Your task to perform on an android device: Open the stopwatch Image 0: 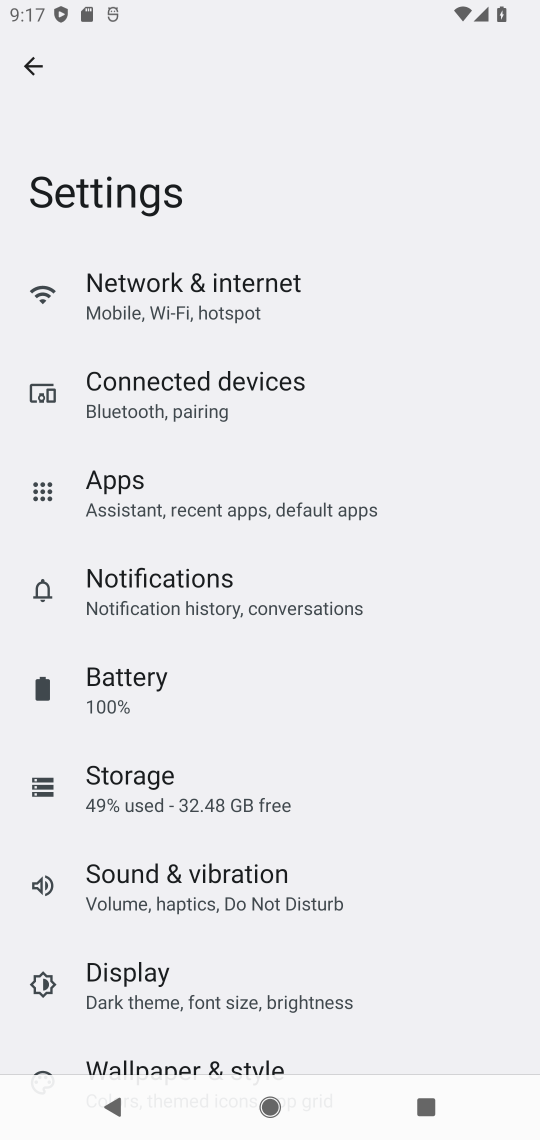
Step 0: press back button
Your task to perform on an android device: Open the stopwatch Image 1: 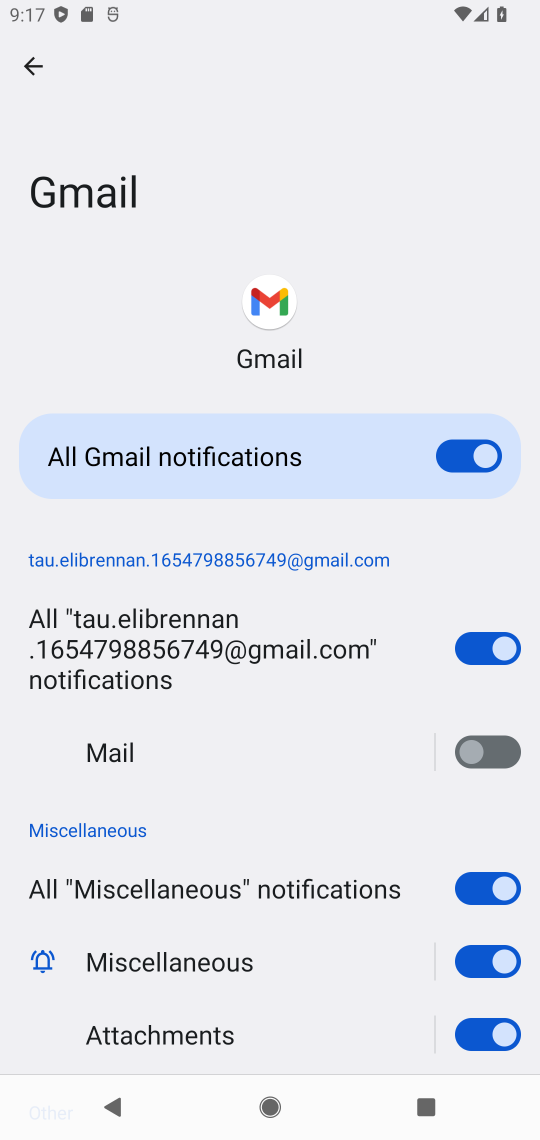
Step 1: press back button
Your task to perform on an android device: Open the stopwatch Image 2: 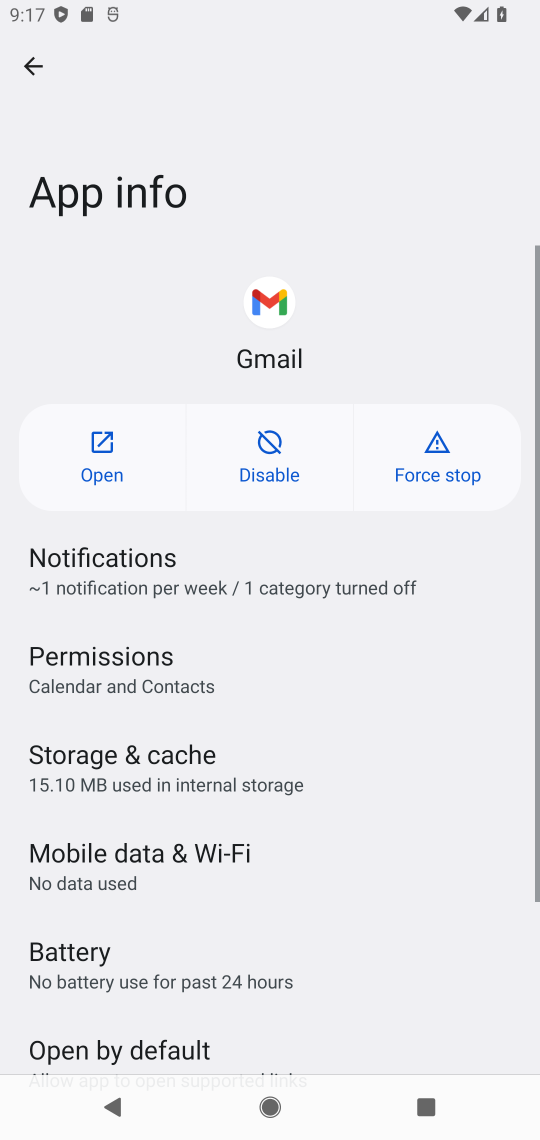
Step 2: press back button
Your task to perform on an android device: Open the stopwatch Image 3: 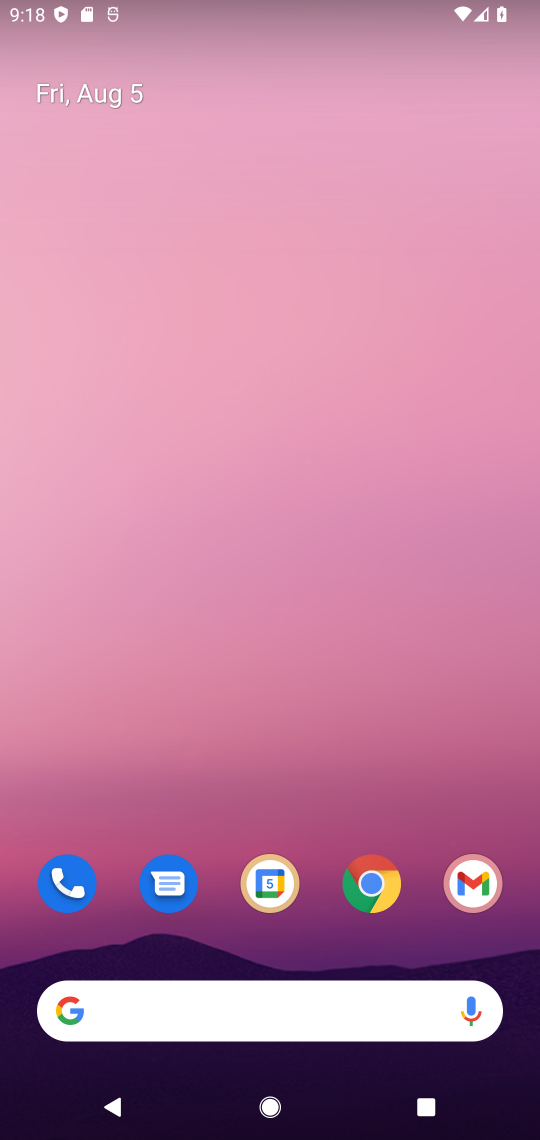
Step 3: drag from (255, 771) to (353, 95)
Your task to perform on an android device: Open the stopwatch Image 4: 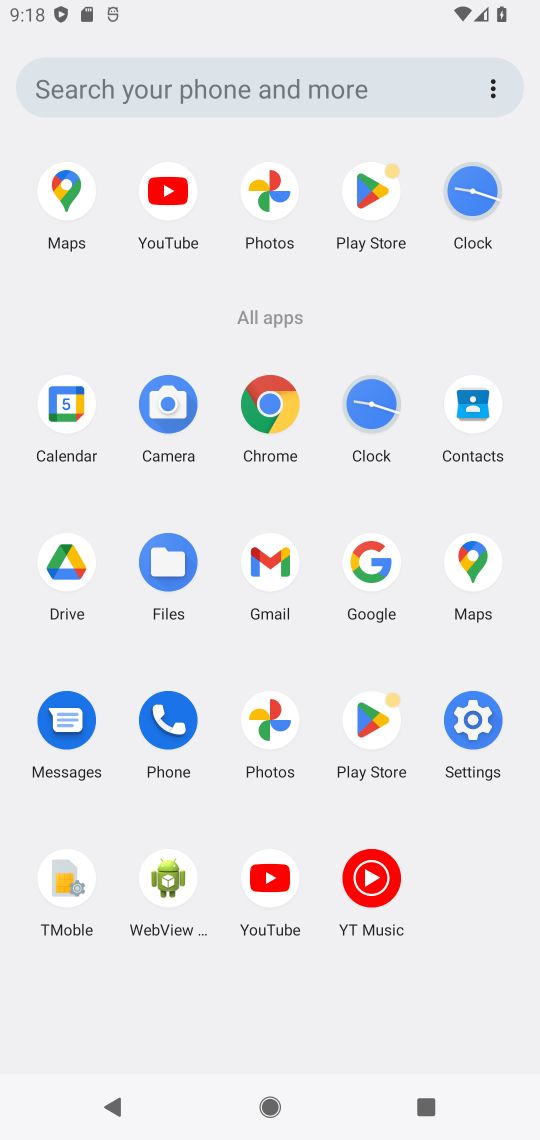
Step 4: click (477, 192)
Your task to perform on an android device: Open the stopwatch Image 5: 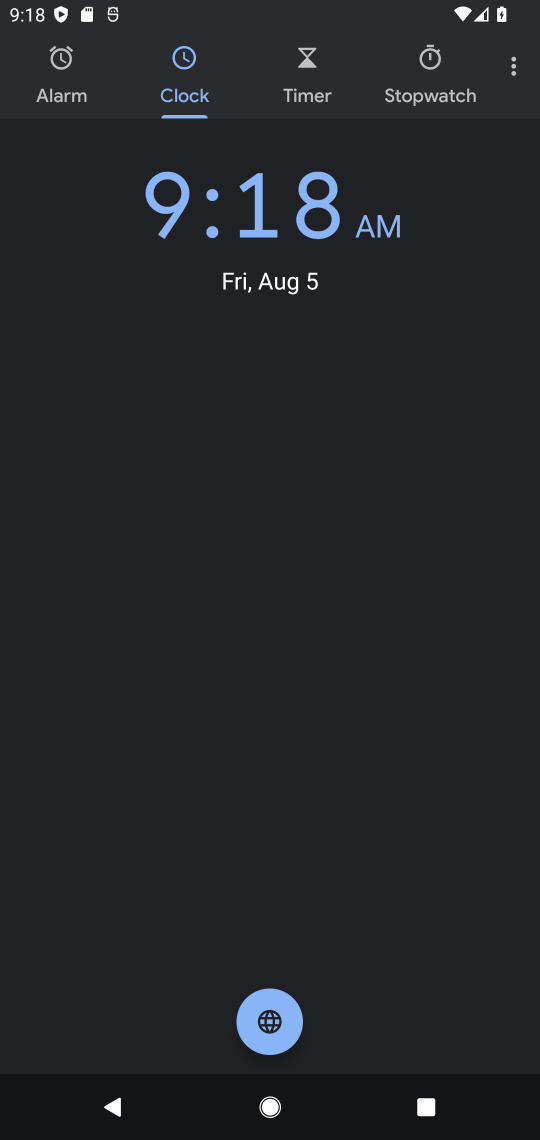
Step 5: click (421, 86)
Your task to perform on an android device: Open the stopwatch Image 6: 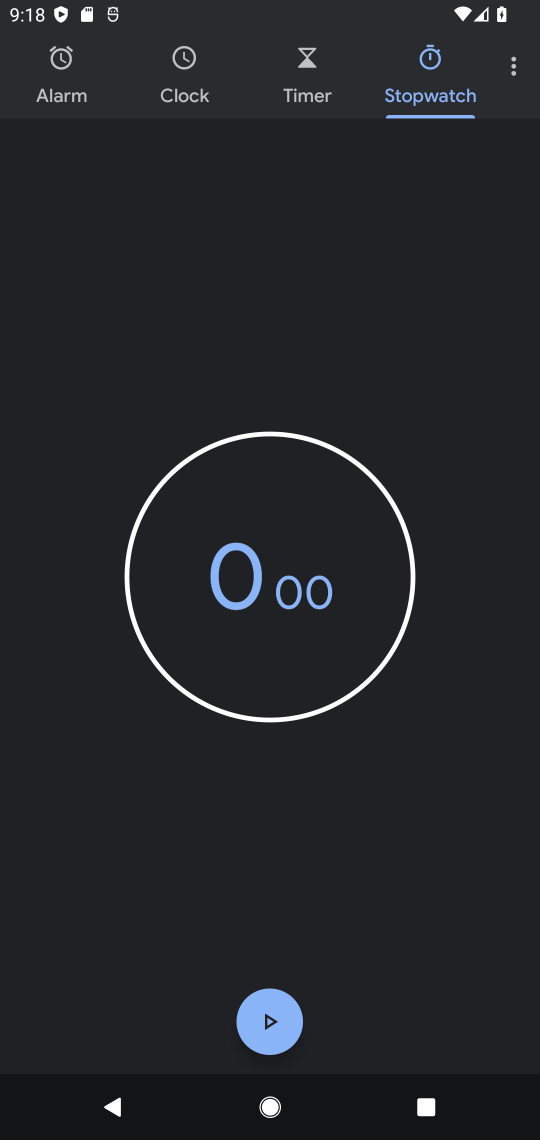
Step 6: task complete